Your task to perform on an android device: Go to notification settings Image 0: 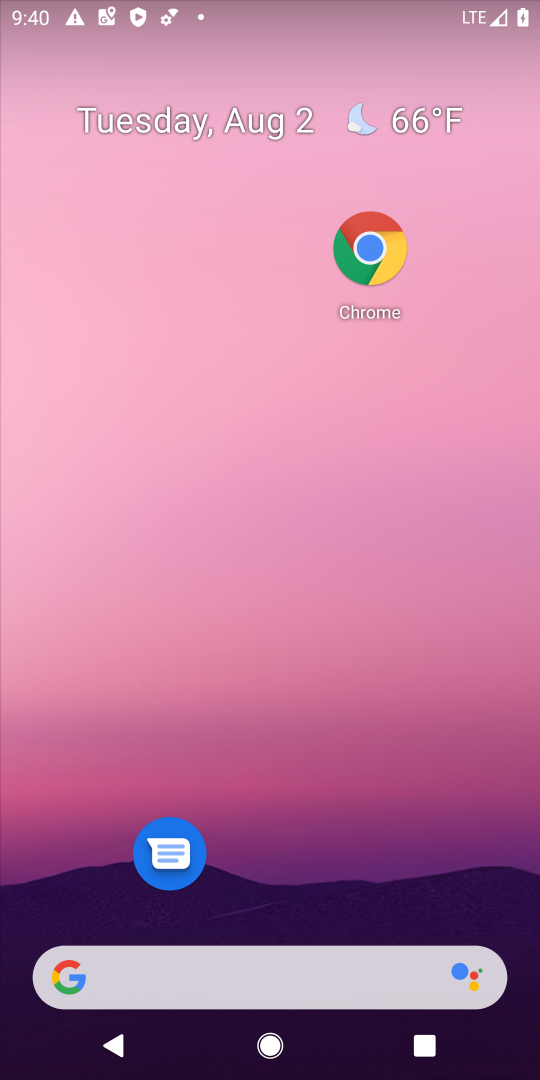
Step 0: drag from (224, 941) to (534, 27)
Your task to perform on an android device: Go to notification settings Image 1: 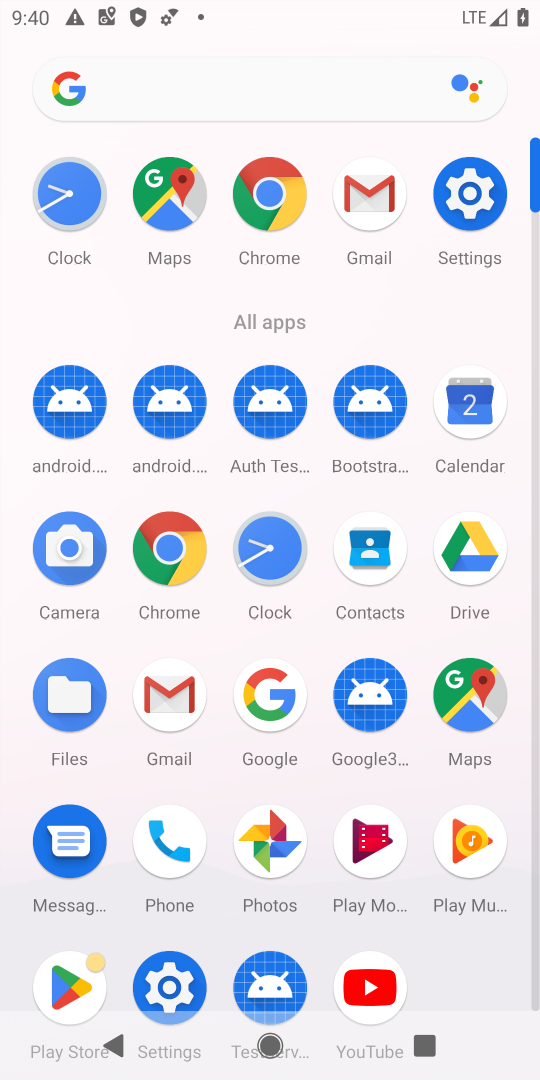
Step 1: click (474, 174)
Your task to perform on an android device: Go to notification settings Image 2: 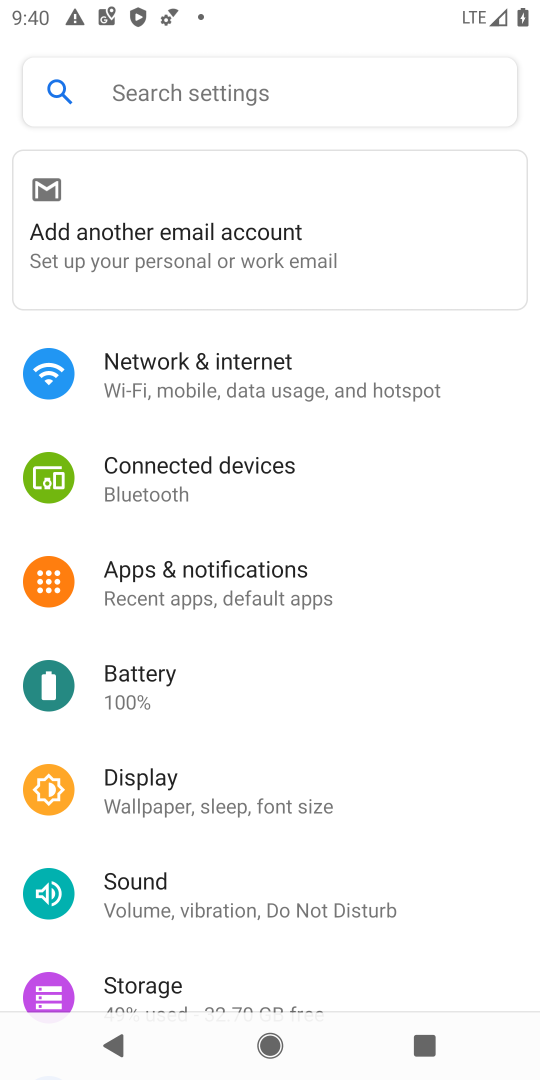
Step 2: click (227, 563)
Your task to perform on an android device: Go to notification settings Image 3: 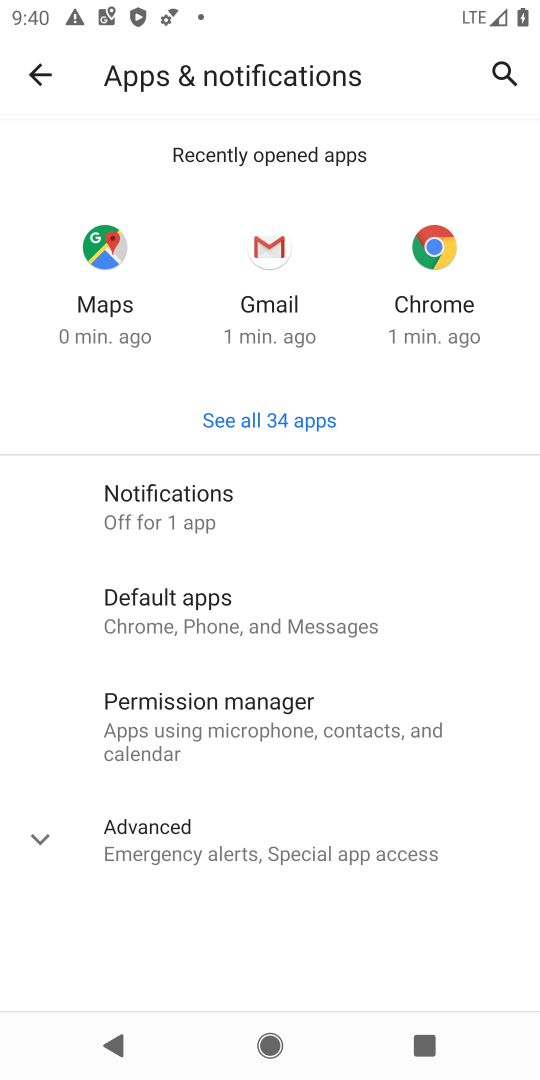
Step 3: click (148, 500)
Your task to perform on an android device: Go to notification settings Image 4: 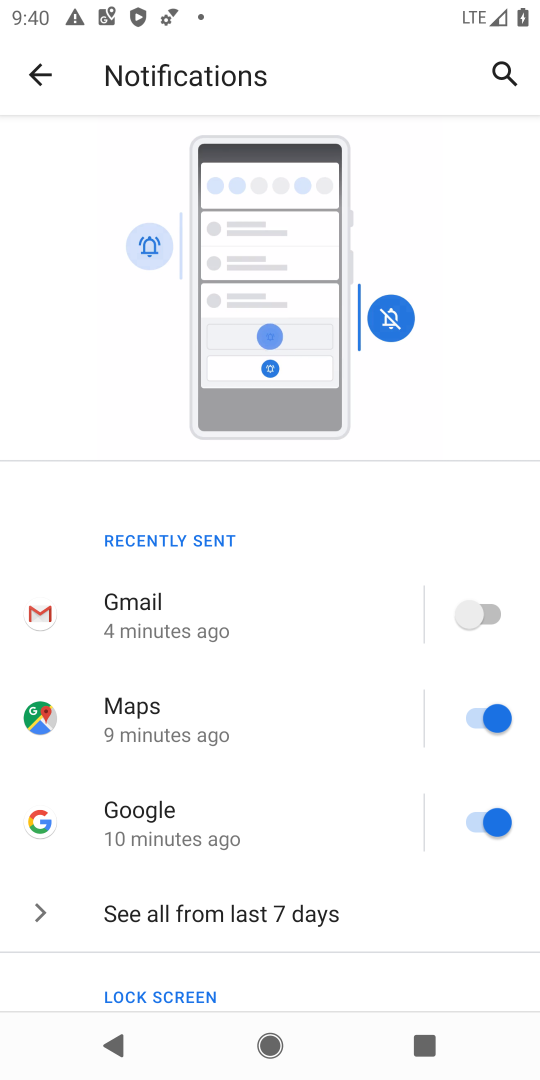
Step 4: task complete